Your task to perform on an android device: Search for seafood restaurants on Google Maps Image 0: 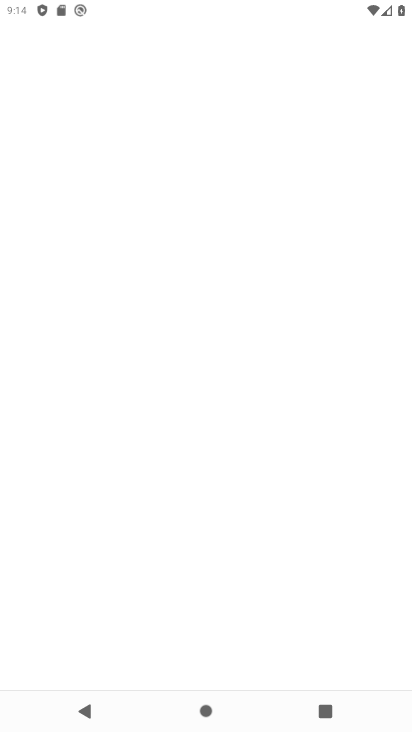
Step 0: press home button
Your task to perform on an android device: Search for seafood restaurants on Google Maps Image 1: 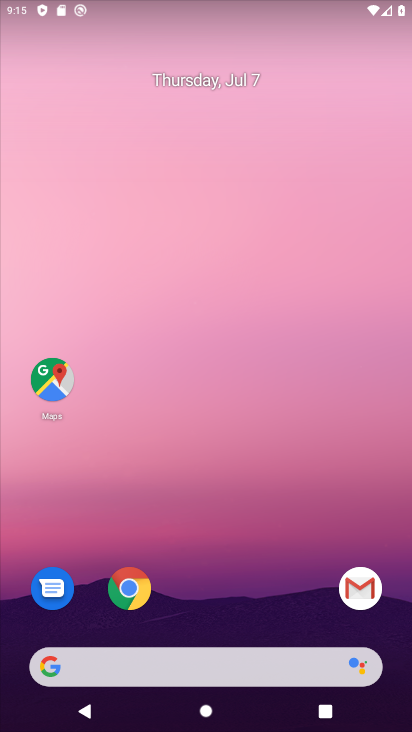
Step 1: click (53, 373)
Your task to perform on an android device: Search for seafood restaurants on Google Maps Image 2: 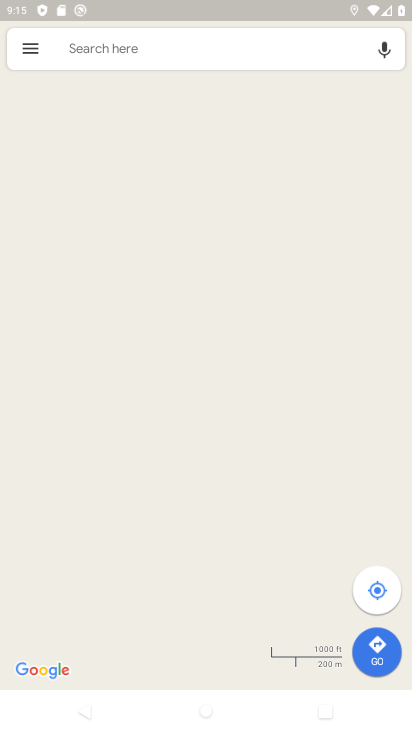
Step 2: click (118, 53)
Your task to perform on an android device: Search for seafood restaurants on Google Maps Image 3: 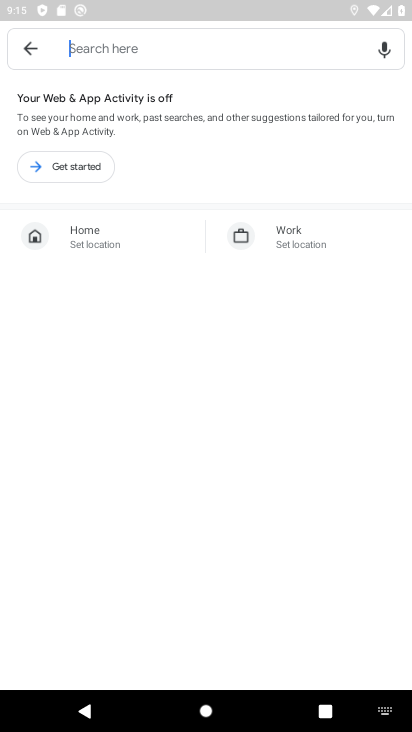
Step 3: click (375, 719)
Your task to perform on an android device: Search for seafood restaurants on Google Maps Image 4: 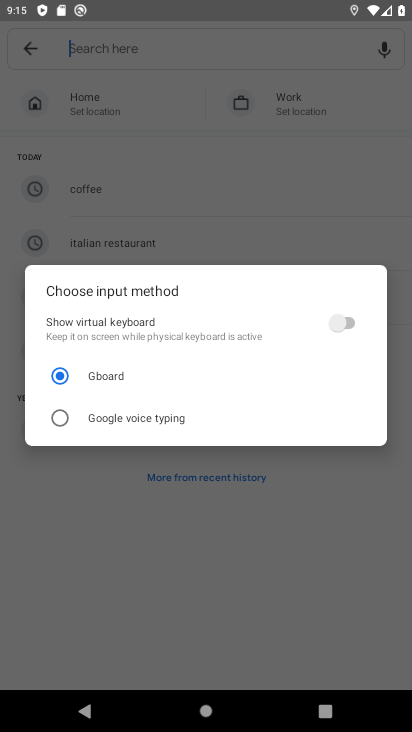
Step 4: click (350, 325)
Your task to perform on an android device: Search for seafood restaurants on Google Maps Image 5: 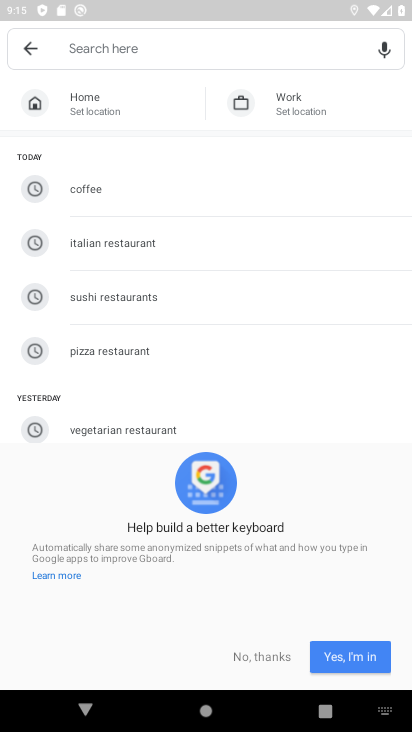
Step 5: click (253, 647)
Your task to perform on an android device: Search for seafood restaurants on Google Maps Image 6: 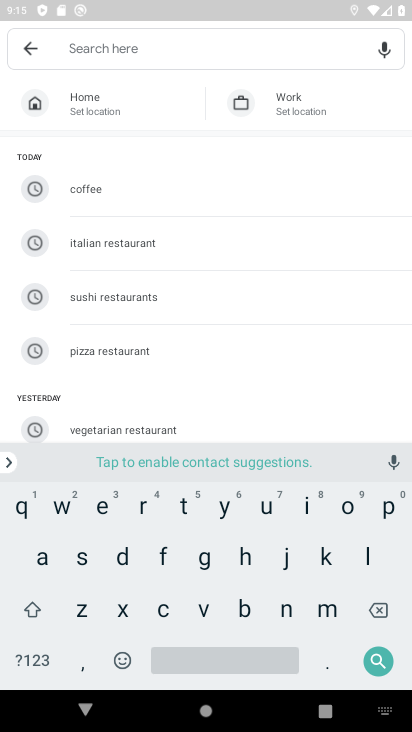
Step 6: click (161, 469)
Your task to perform on an android device: Search for seafood restaurants on Google Maps Image 7: 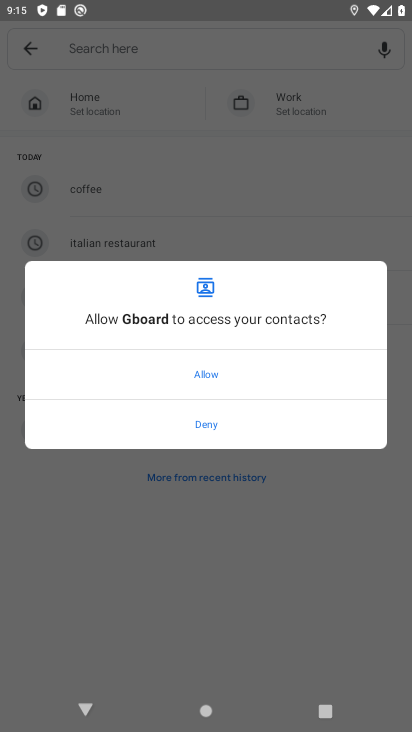
Step 7: click (218, 363)
Your task to perform on an android device: Search for seafood restaurants on Google Maps Image 8: 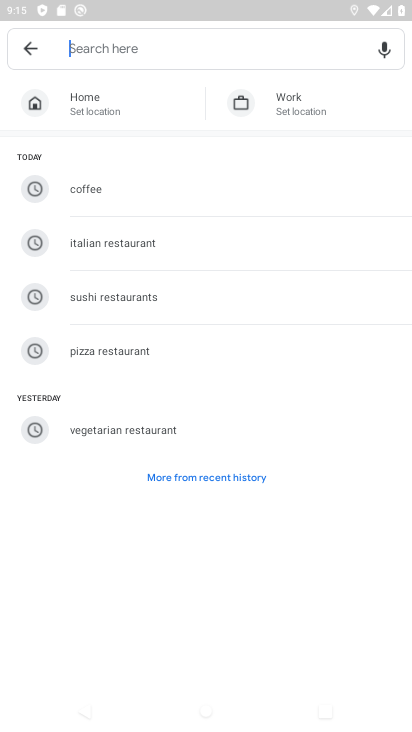
Step 8: click (96, 41)
Your task to perform on an android device: Search for seafood restaurants on Google Maps Image 9: 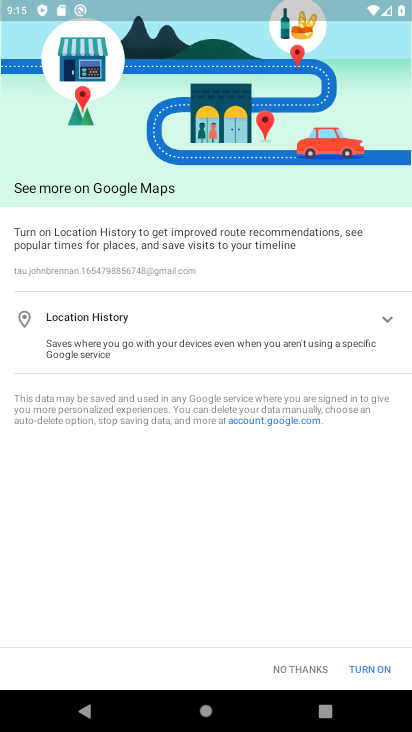
Step 9: click (294, 668)
Your task to perform on an android device: Search for seafood restaurants on Google Maps Image 10: 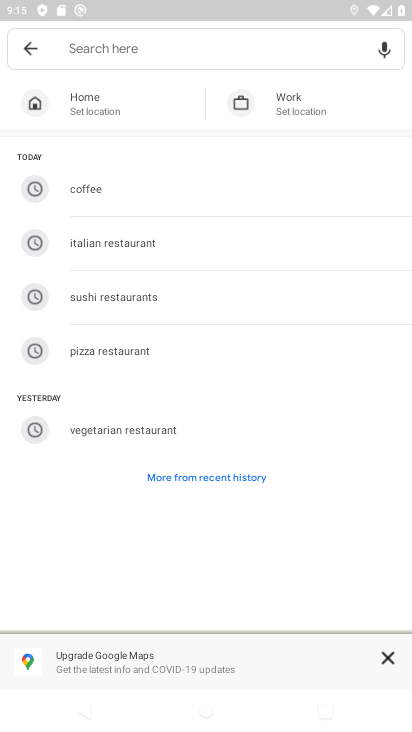
Step 10: click (101, 50)
Your task to perform on an android device: Search for seafood restaurants on Google Maps Image 11: 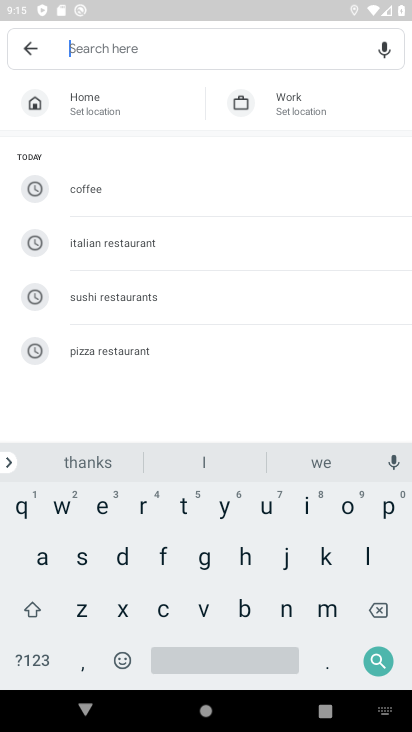
Step 11: click (75, 552)
Your task to perform on an android device: Search for seafood restaurants on Google Maps Image 12: 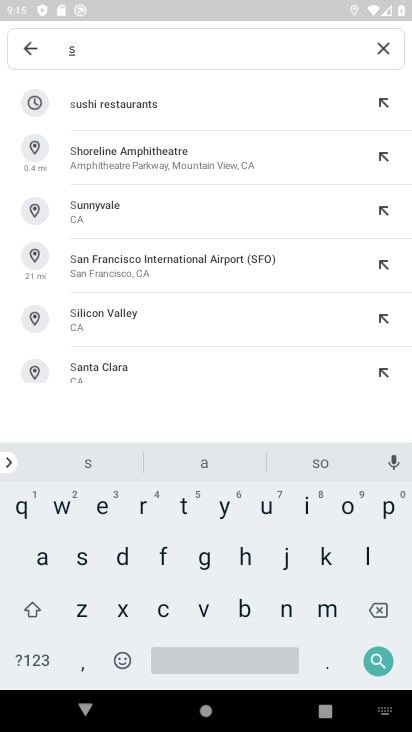
Step 12: click (104, 501)
Your task to perform on an android device: Search for seafood restaurants on Google Maps Image 13: 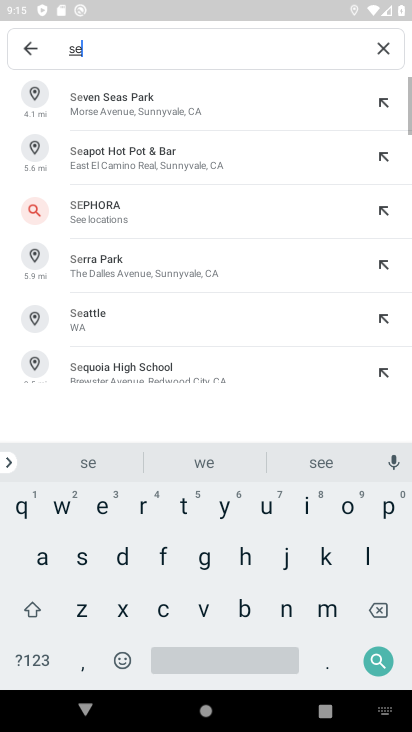
Step 13: click (43, 552)
Your task to perform on an android device: Search for seafood restaurants on Google Maps Image 14: 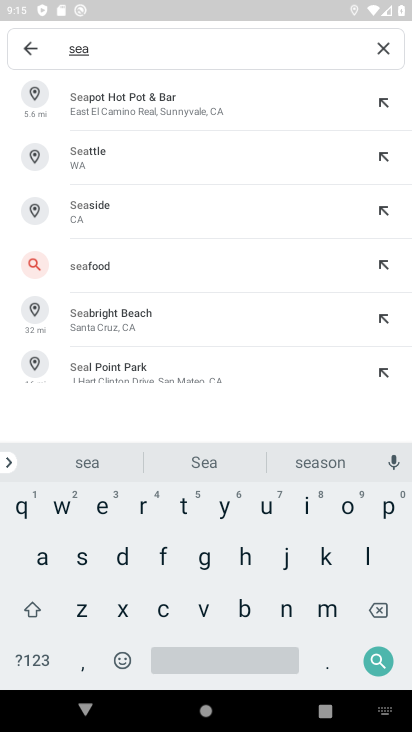
Step 14: click (199, 463)
Your task to perform on an android device: Search for seafood restaurants on Google Maps Image 15: 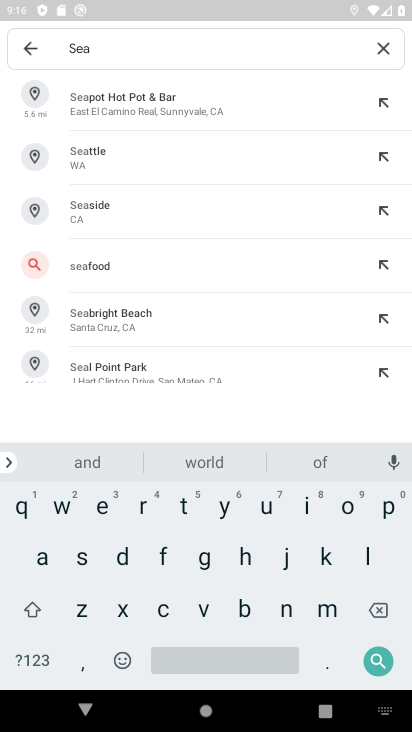
Step 15: click (163, 555)
Your task to perform on an android device: Search for seafood restaurants on Google Maps Image 16: 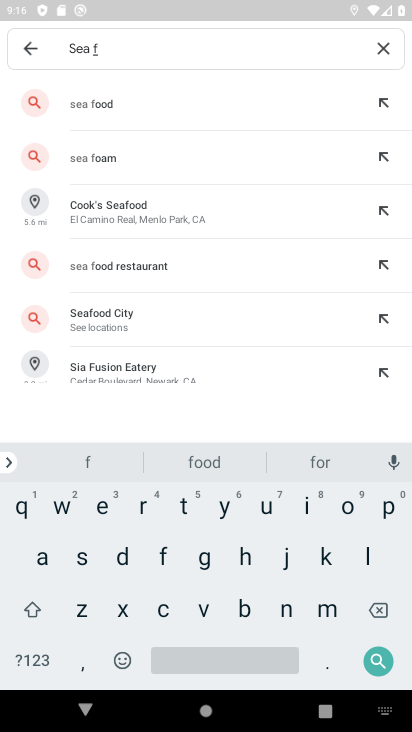
Step 16: click (100, 104)
Your task to perform on an android device: Search for seafood restaurants on Google Maps Image 17: 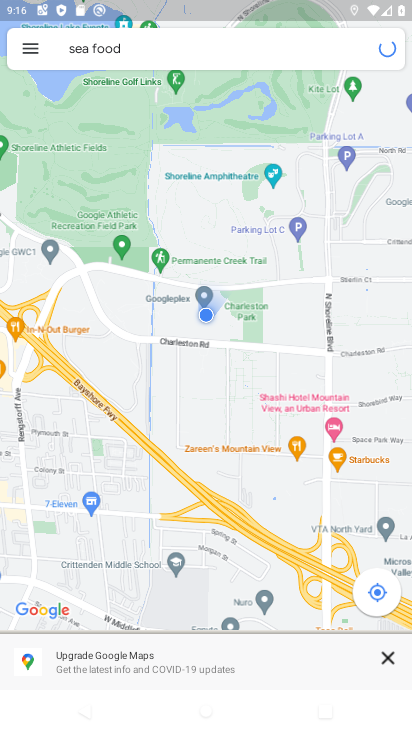
Step 17: task complete